Your task to perform on an android device: Open calendar and show me the second week of next month Image 0: 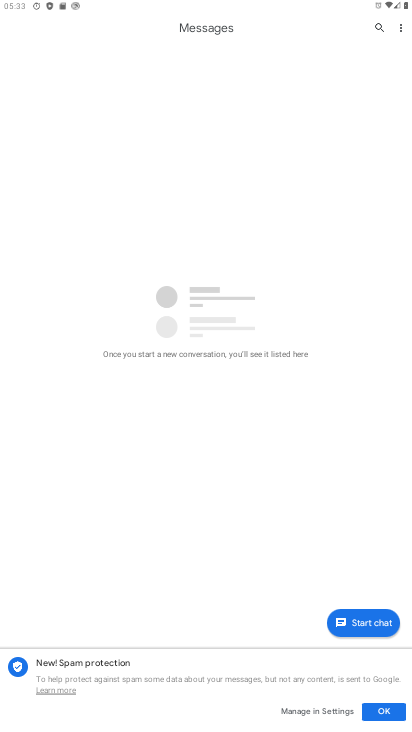
Step 0: press home button
Your task to perform on an android device: Open calendar and show me the second week of next month Image 1: 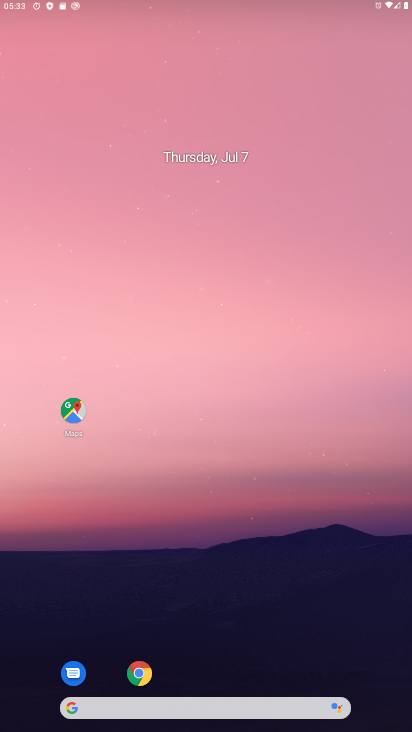
Step 1: drag from (260, 634) to (296, 5)
Your task to perform on an android device: Open calendar and show me the second week of next month Image 2: 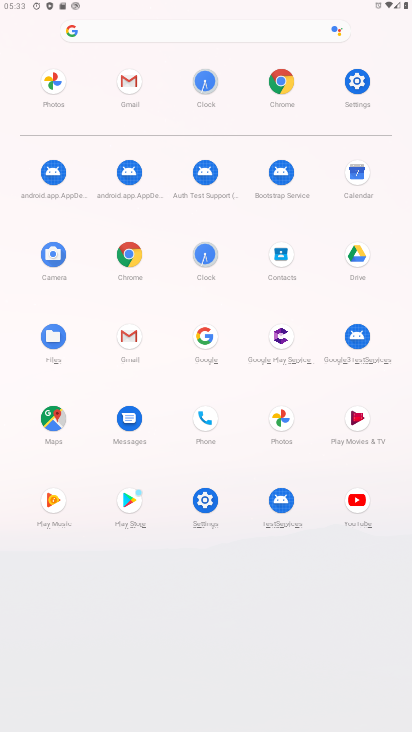
Step 2: click (352, 165)
Your task to perform on an android device: Open calendar and show me the second week of next month Image 3: 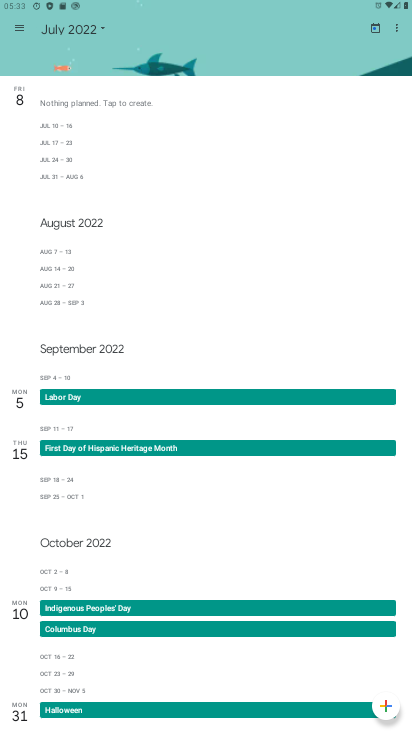
Step 3: click (98, 28)
Your task to perform on an android device: Open calendar and show me the second week of next month Image 4: 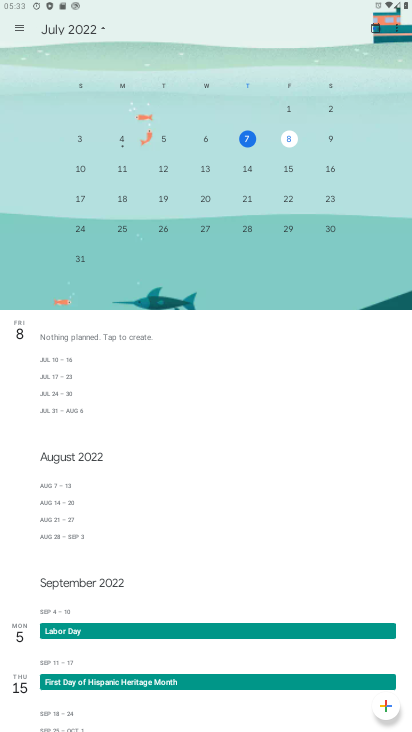
Step 4: drag from (335, 197) to (127, 198)
Your task to perform on an android device: Open calendar and show me the second week of next month Image 5: 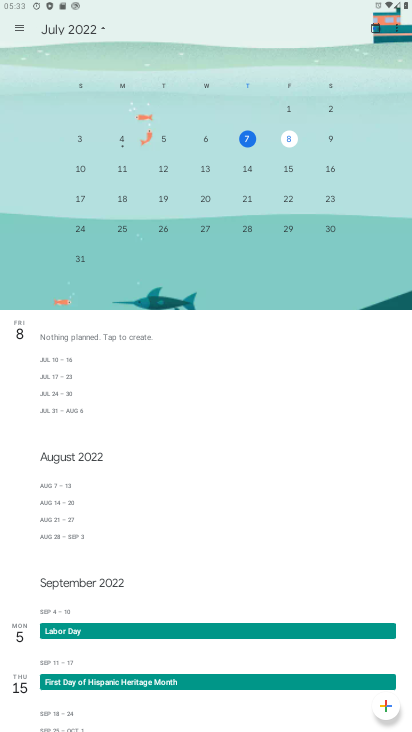
Step 5: drag from (318, 149) to (7, 165)
Your task to perform on an android device: Open calendar and show me the second week of next month Image 6: 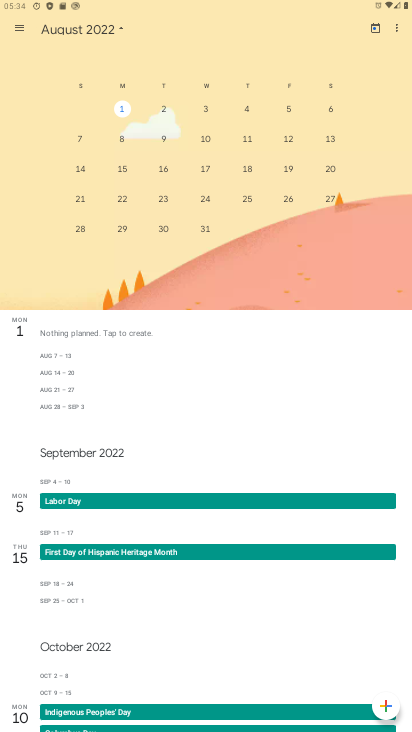
Step 6: click (211, 139)
Your task to perform on an android device: Open calendar and show me the second week of next month Image 7: 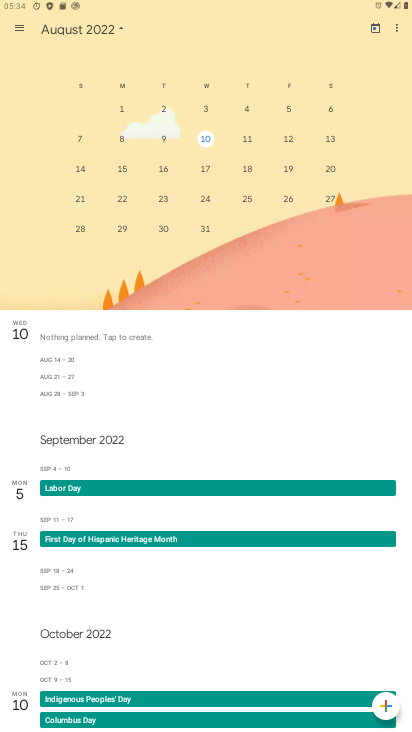
Step 7: click (28, 29)
Your task to perform on an android device: Open calendar and show me the second week of next month Image 8: 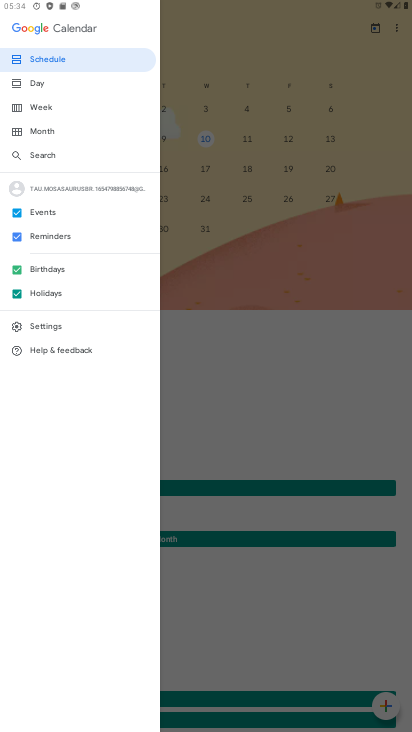
Step 8: click (40, 109)
Your task to perform on an android device: Open calendar and show me the second week of next month Image 9: 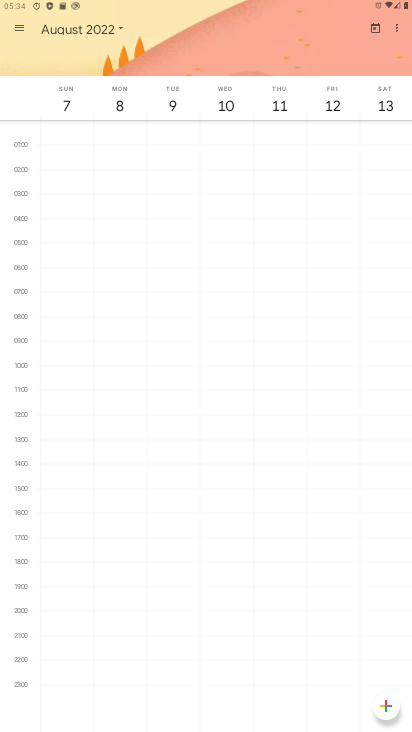
Step 9: task complete